Your task to perform on an android device: Do I have any events today? Image 0: 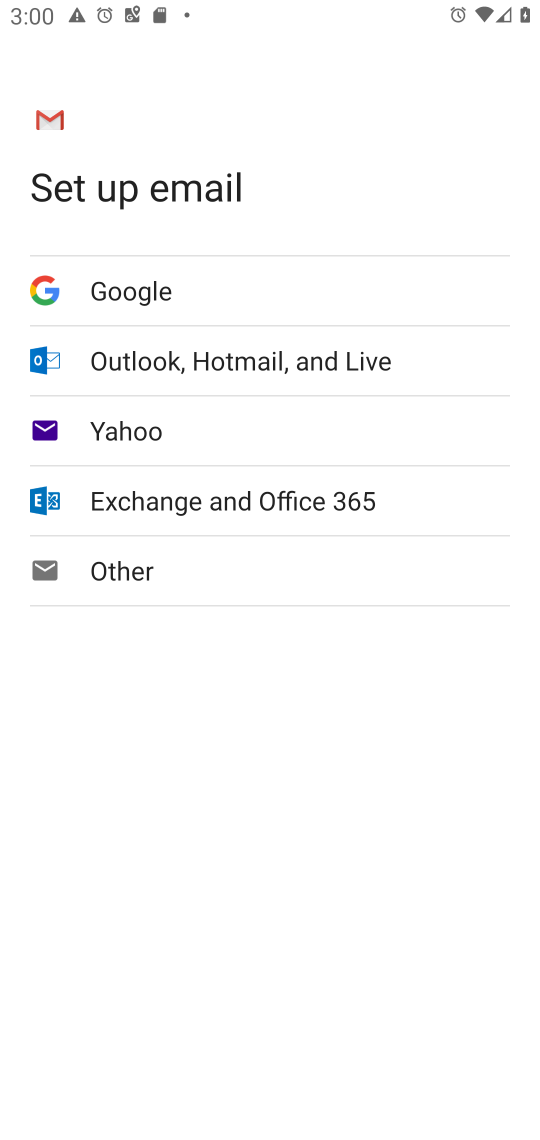
Step 0: press home button
Your task to perform on an android device: Do I have any events today? Image 1: 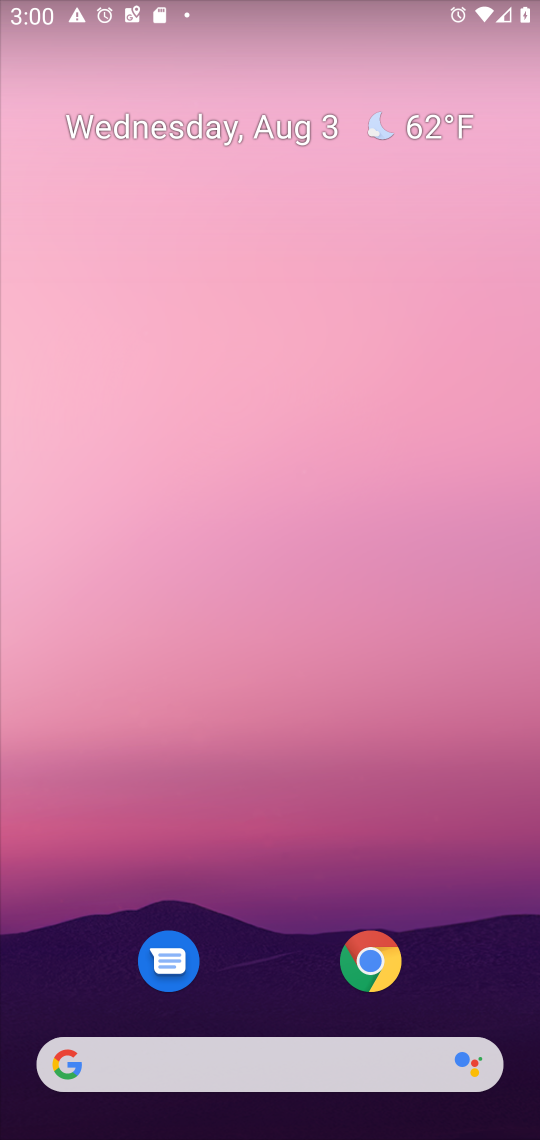
Step 1: drag from (273, 949) to (279, 46)
Your task to perform on an android device: Do I have any events today? Image 2: 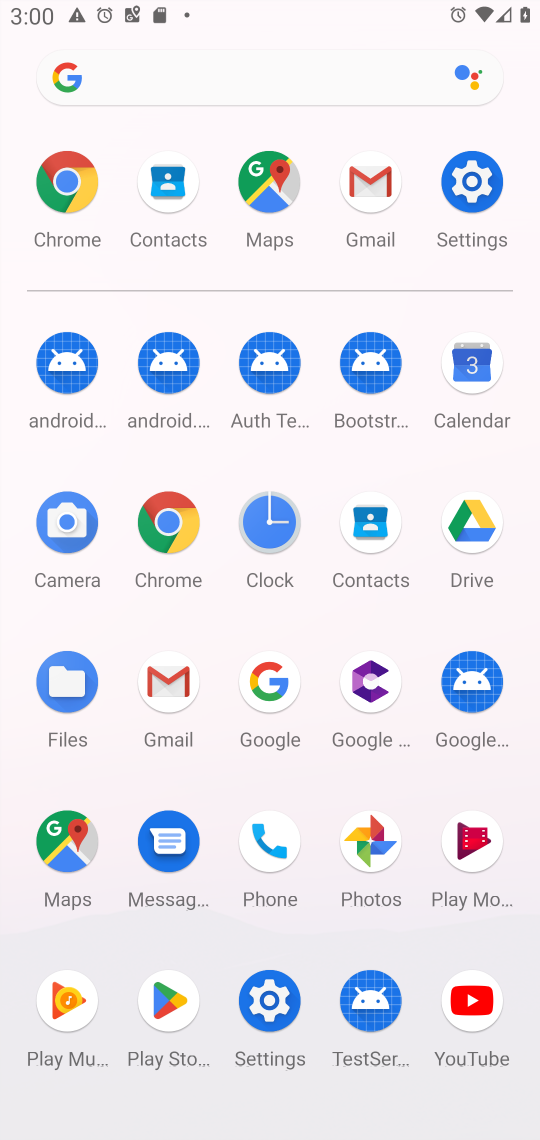
Step 2: click (466, 391)
Your task to perform on an android device: Do I have any events today? Image 3: 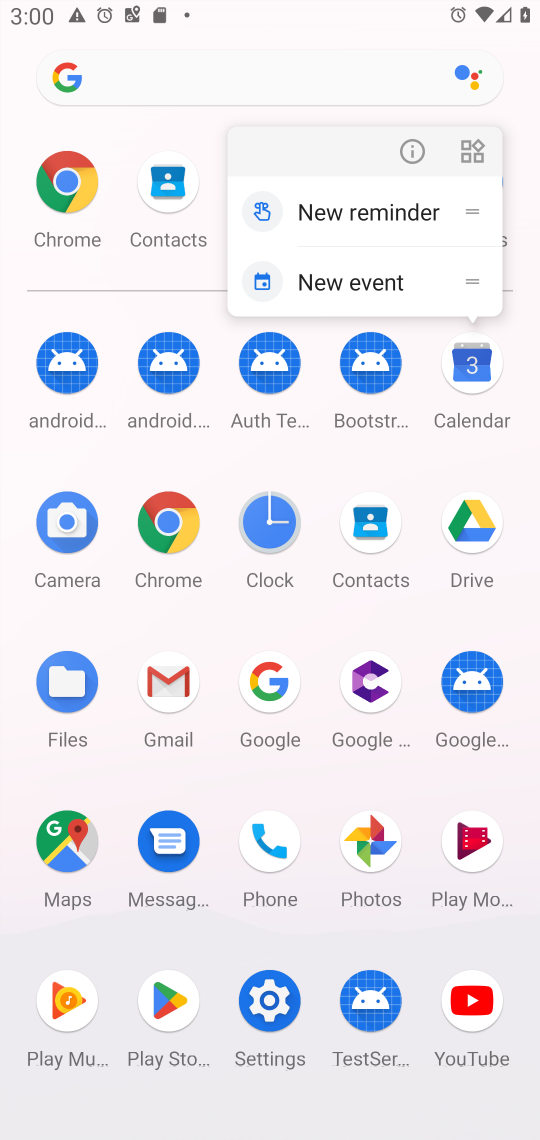
Step 3: click (468, 376)
Your task to perform on an android device: Do I have any events today? Image 4: 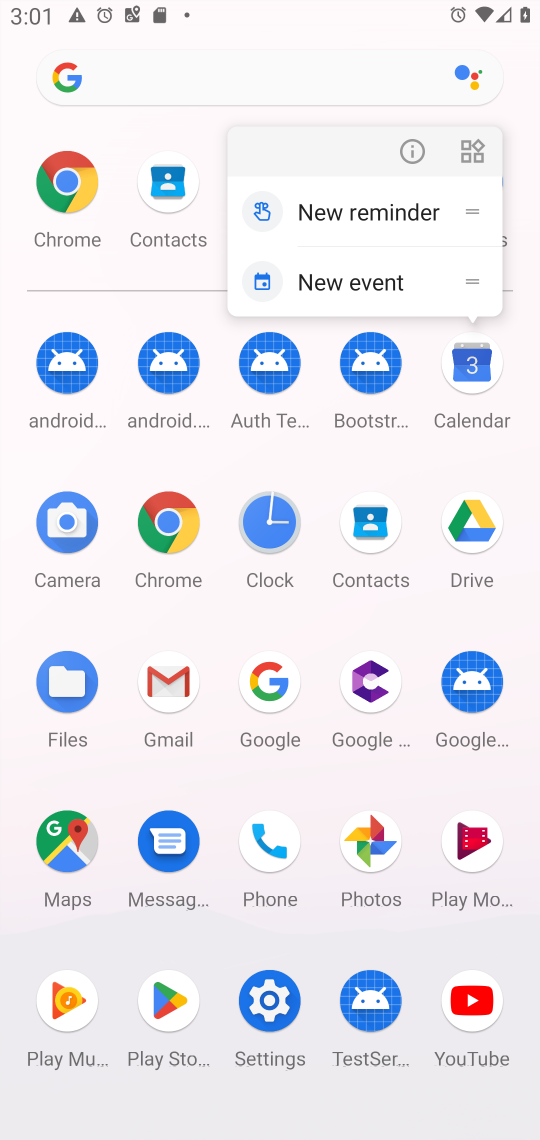
Step 4: click (468, 376)
Your task to perform on an android device: Do I have any events today? Image 5: 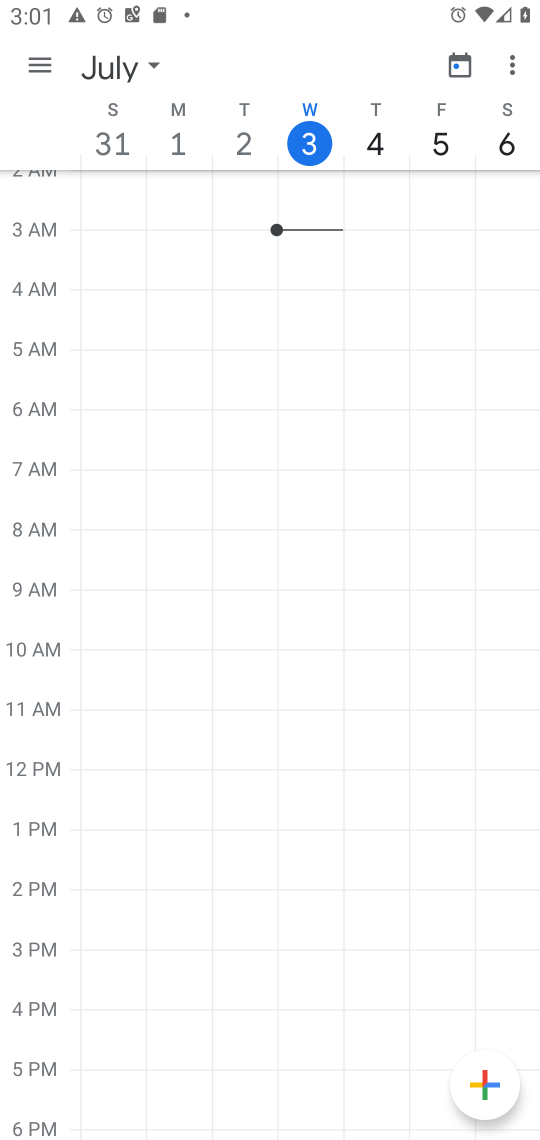
Step 5: click (45, 67)
Your task to perform on an android device: Do I have any events today? Image 6: 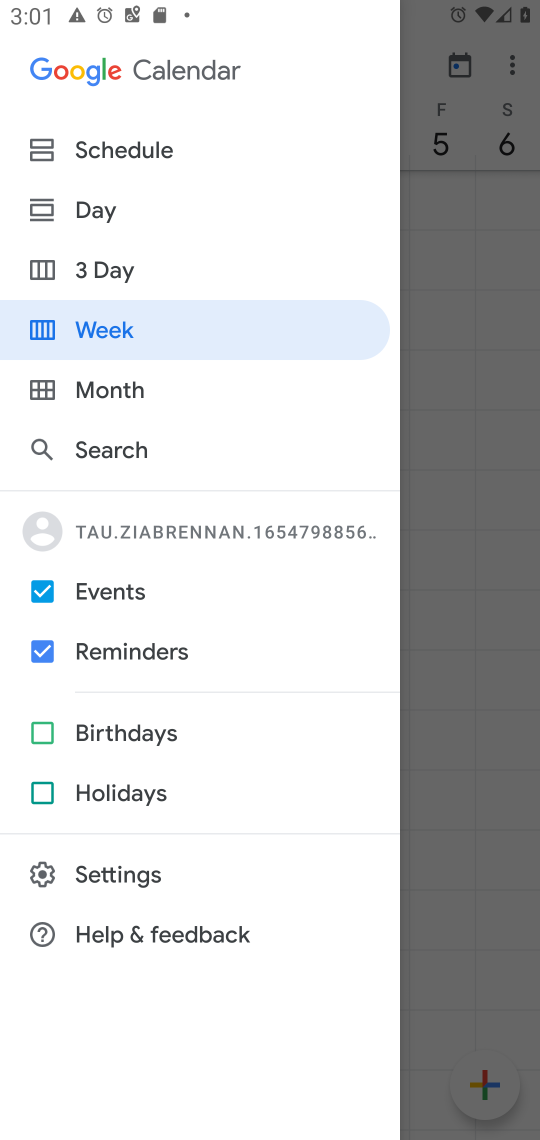
Step 6: click (97, 267)
Your task to perform on an android device: Do I have any events today? Image 7: 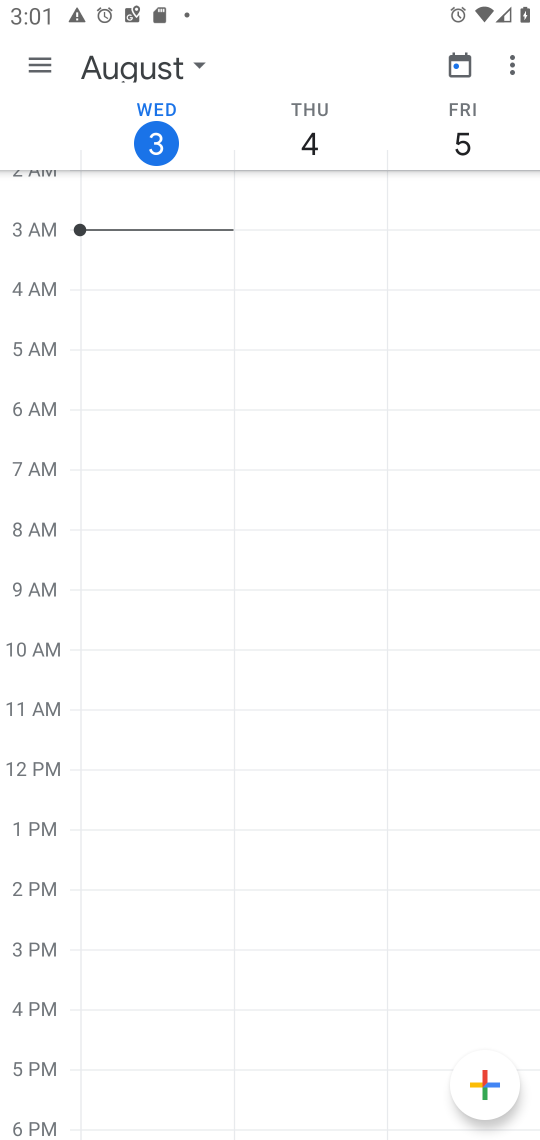
Step 7: click (47, 72)
Your task to perform on an android device: Do I have any events today? Image 8: 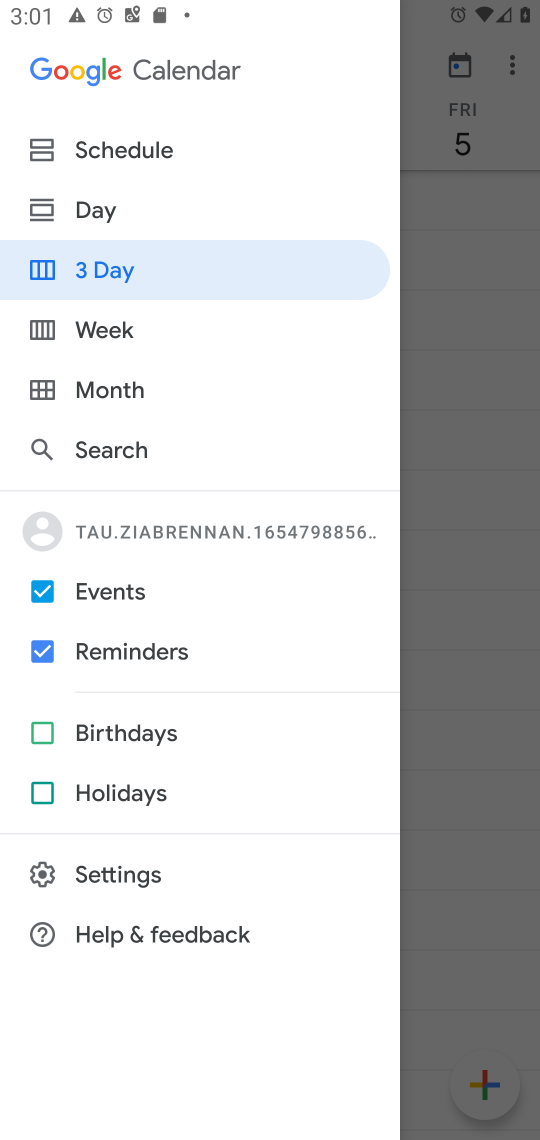
Step 8: click (50, 211)
Your task to perform on an android device: Do I have any events today? Image 9: 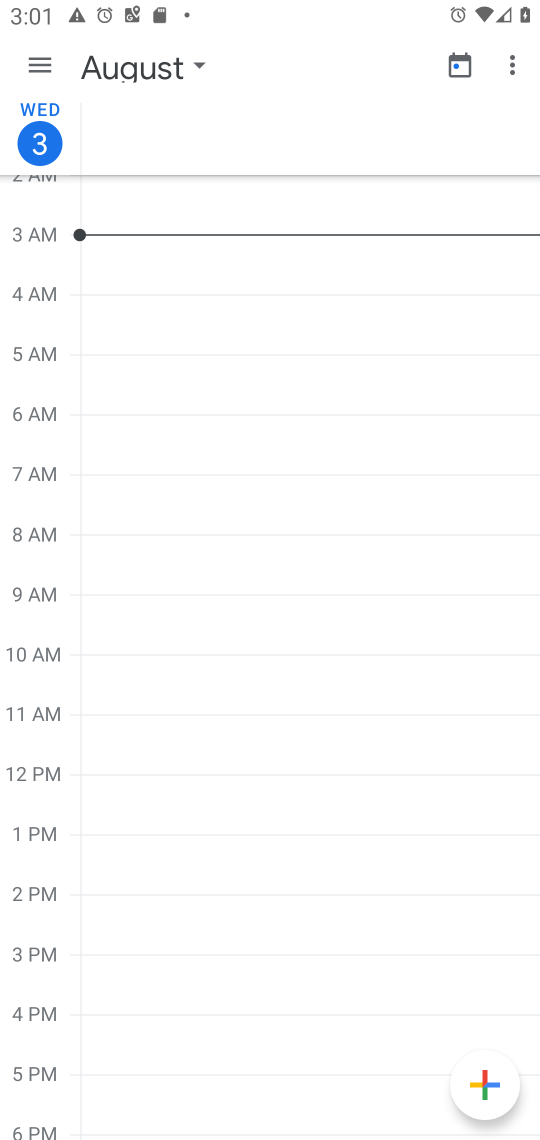
Step 9: task complete